Your task to perform on an android device: open device folders in google photos Image 0: 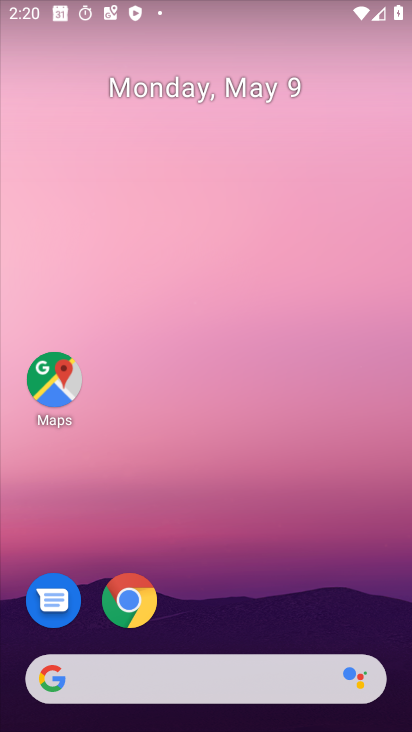
Step 0: drag from (277, 613) to (292, 229)
Your task to perform on an android device: open device folders in google photos Image 1: 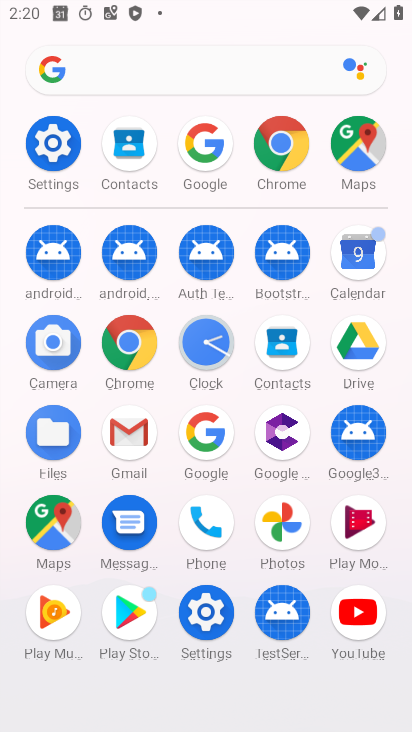
Step 1: click (277, 510)
Your task to perform on an android device: open device folders in google photos Image 2: 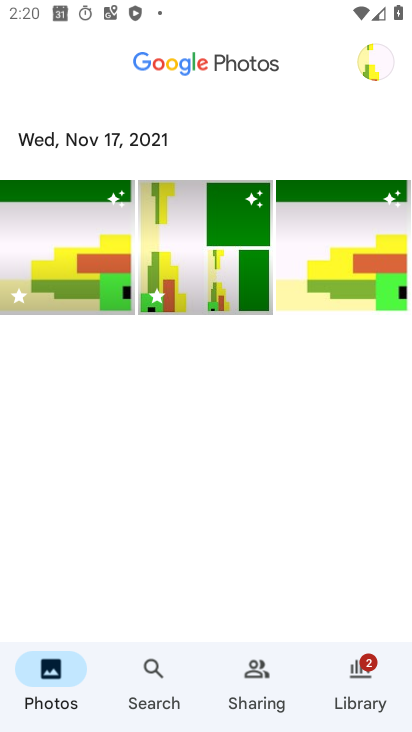
Step 2: click (141, 685)
Your task to perform on an android device: open device folders in google photos Image 3: 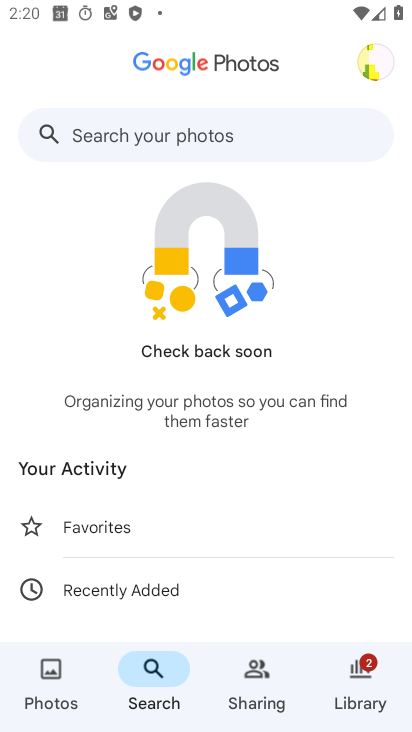
Step 3: click (224, 142)
Your task to perform on an android device: open device folders in google photos Image 4: 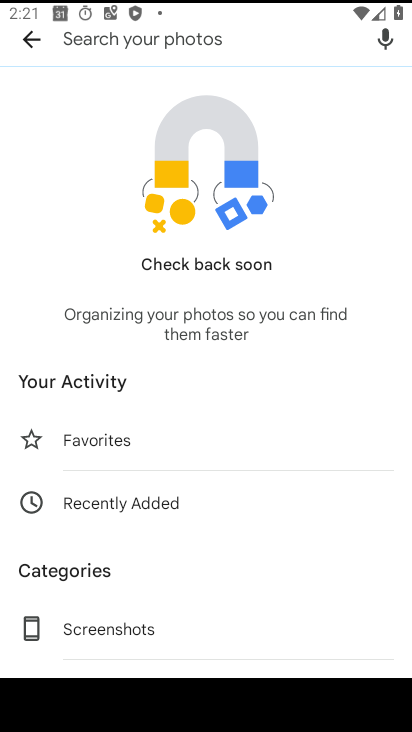
Step 4: drag from (199, 434) to (216, 214)
Your task to perform on an android device: open device folders in google photos Image 5: 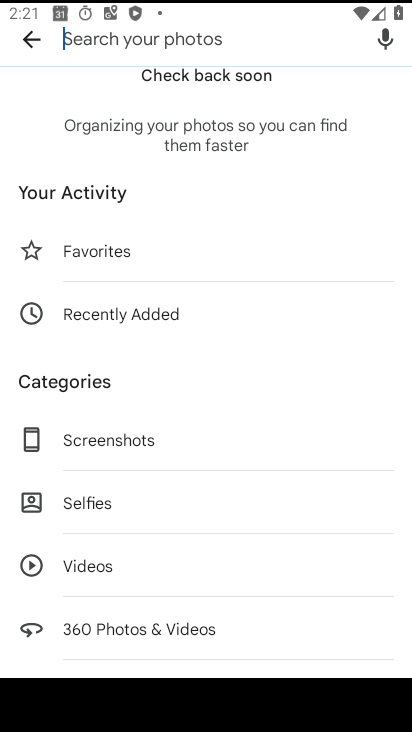
Step 5: drag from (196, 540) to (226, 241)
Your task to perform on an android device: open device folders in google photos Image 6: 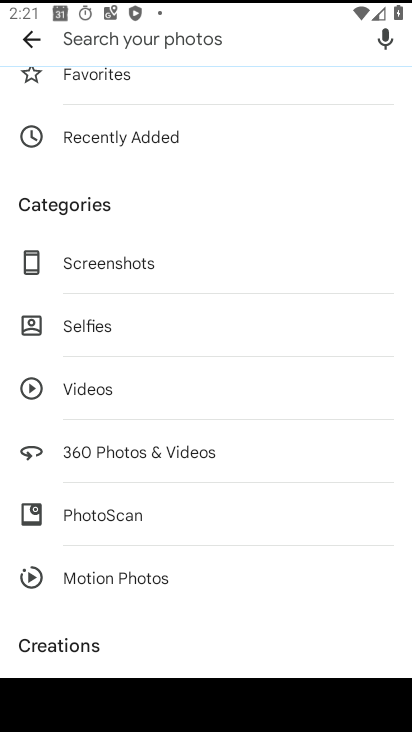
Step 6: drag from (199, 527) to (244, 192)
Your task to perform on an android device: open device folders in google photos Image 7: 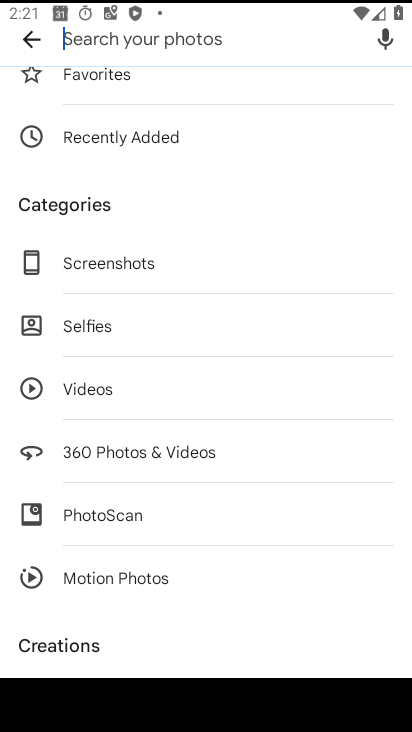
Step 7: drag from (232, 576) to (243, 173)
Your task to perform on an android device: open device folders in google photos Image 8: 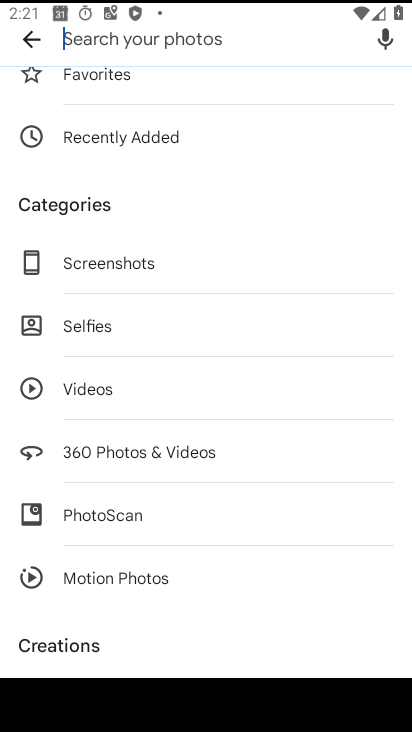
Step 8: drag from (159, 544) to (186, 218)
Your task to perform on an android device: open device folders in google photos Image 9: 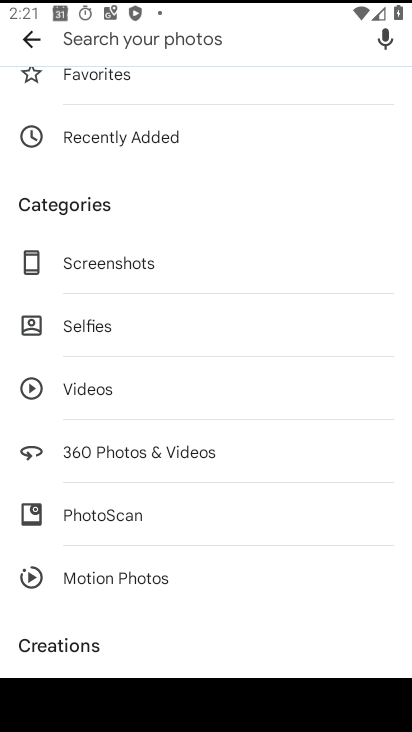
Step 9: click (179, 38)
Your task to perform on an android device: open device folders in google photos Image 10: 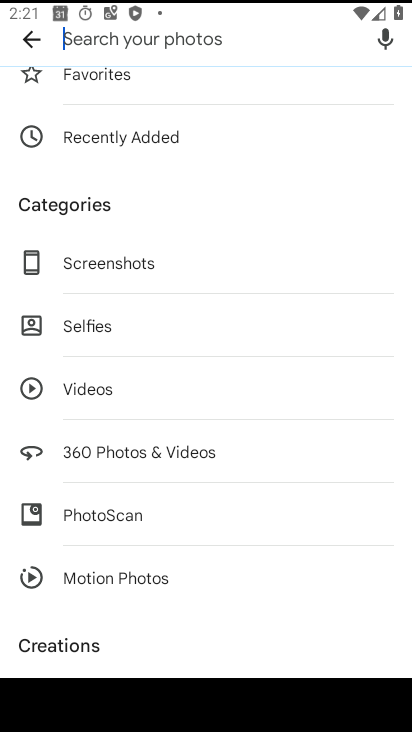
Step 10: type "device folders "
Your task to perform on an android device: open device folders in google photos Image 11: 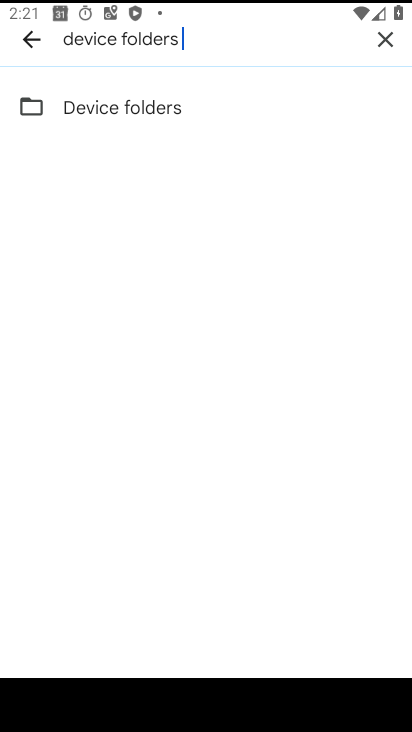
Step 11: type ""
Your task to perform on an android device: open device folders in google photos Image 12: 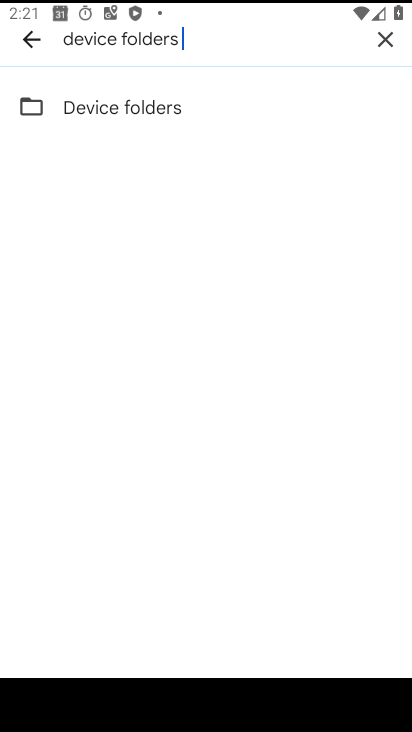
Step 12: click (198, 120)
Your task to perform on an android device: open device folders in google photos Image 13: 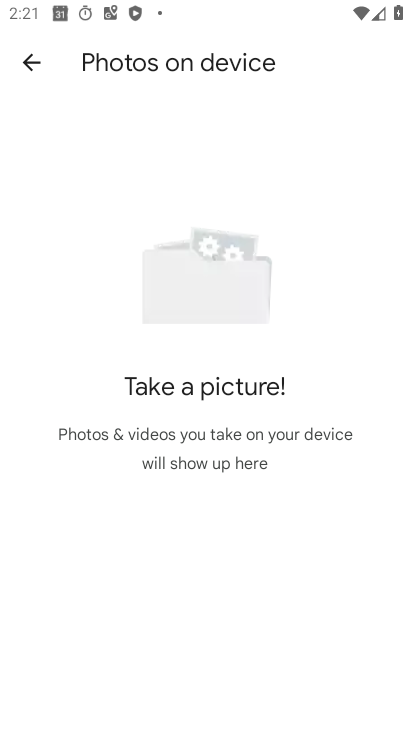
Step 13: task complete